Your task to perform on an android device: Do I have any events tomorrow? Image 0: 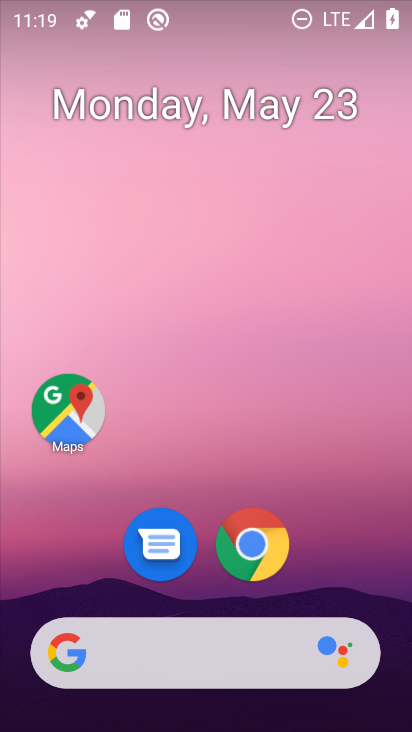
Step 0: drag from (399, 634) to (352, 145)
Your task to perform on an android device: Do I have any events tomorrow? Image 1: 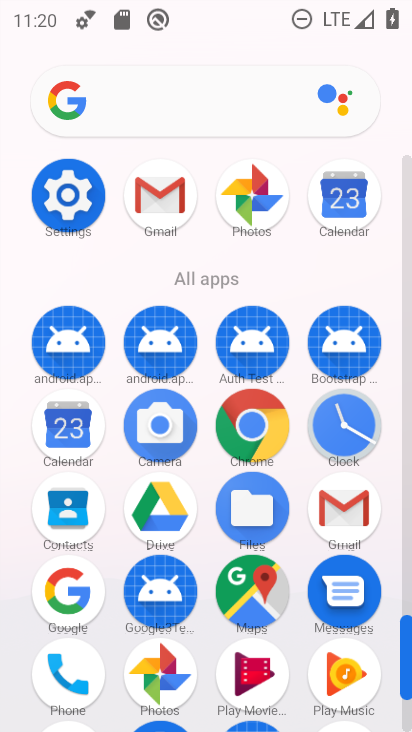
Step 1: click (406, 713)
Your task to perform on an android device: Do I have any events tomorrow? Image 2: 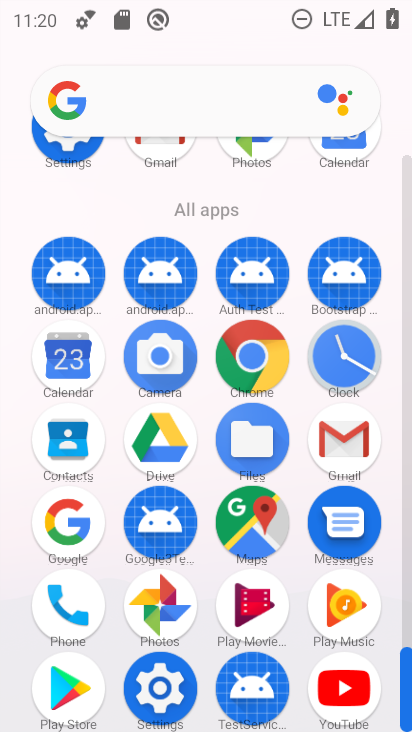
Step 2: click (65, 356)
Your task to perform on an android device: Do I have any events tomorrow? Image 3: 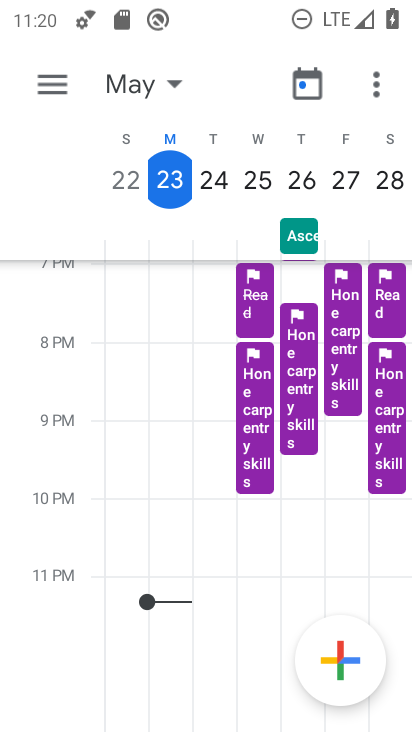
Step 3: click (53, 83)
Your task to perform on an android device: Do I have any events tomorrow? Image 4: 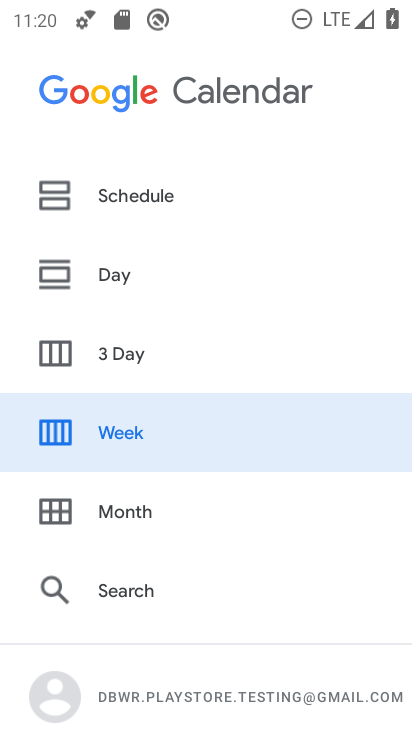
Step 4: click (114, 284)
Your task to perform on an android device: Do I have any events tomorrow? Image 5: 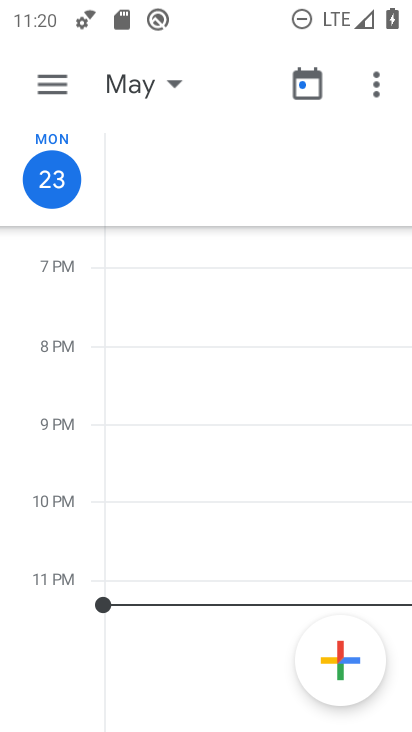
Step 5: click (167, 81)
Your task to perform on an android device: Do I have any events tomorrow? Image 6: 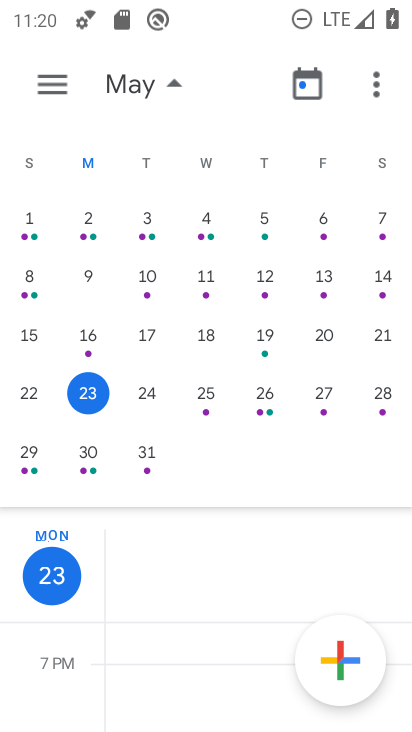
Step 6: click (155, 390)
Your task to perform on an android device: Do I have any events tomorrow? Image 7: 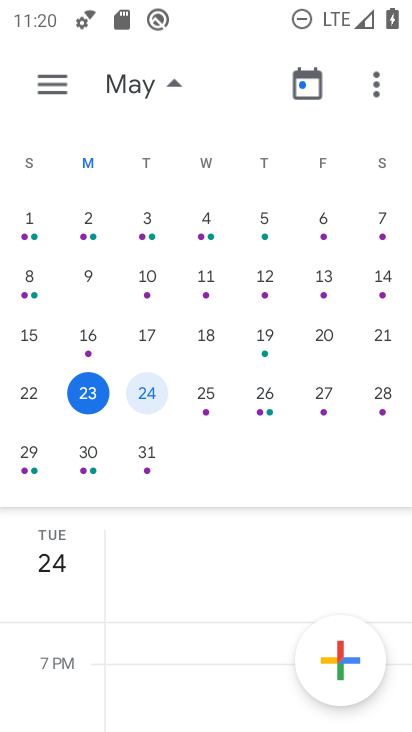
Step 7: task complete